Your task to perform on an android device: What is the recent news? Image 0: 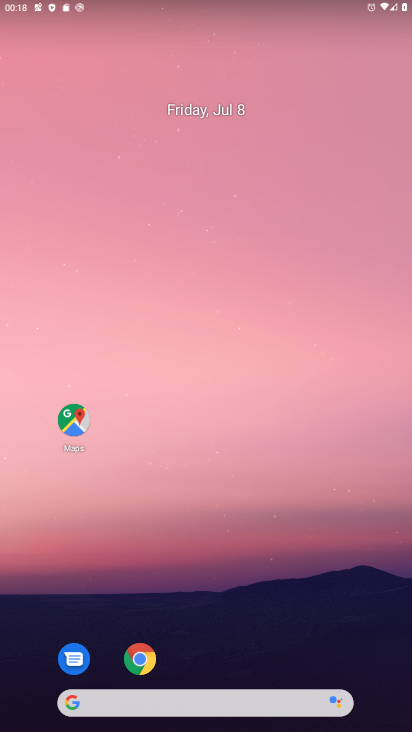
Step 0: click (165, 703)
Your task to perform on an android device: What is the recent news? Image 1: 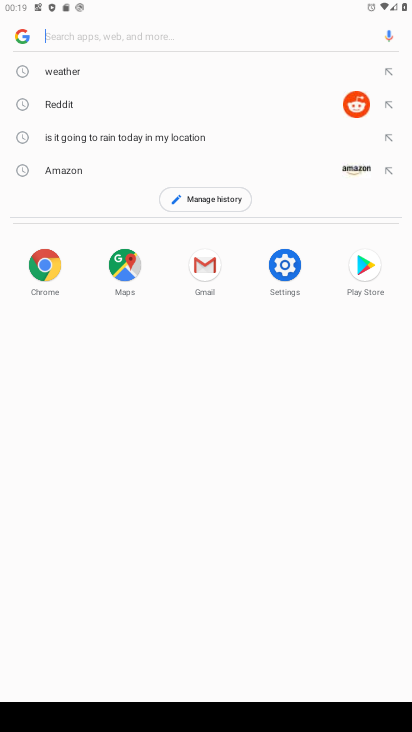
Step 1: click (29, 36)
Your task to perform on an android device: What is the recent news? Image 2: 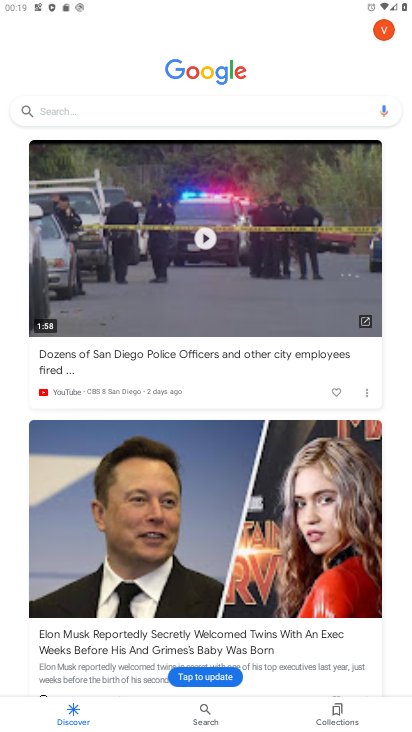
Step 2: task complete